Your task to perform on an android device: Go to network settings Image 0: 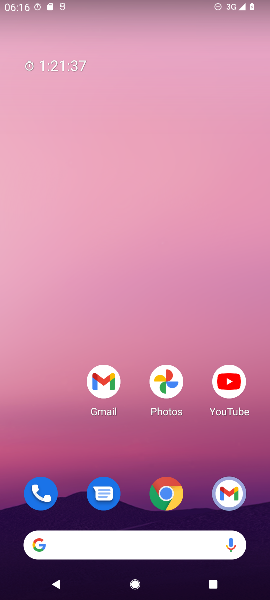
Step 0: drag from (68, 445) to (73, 102)
Your task to perform on an android device: Go to network settings Image 1: 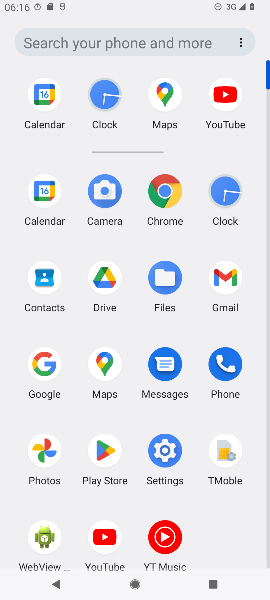
Step 1: click (164, 459)
Your task to perform on an android device: Go to network settings Image 2: 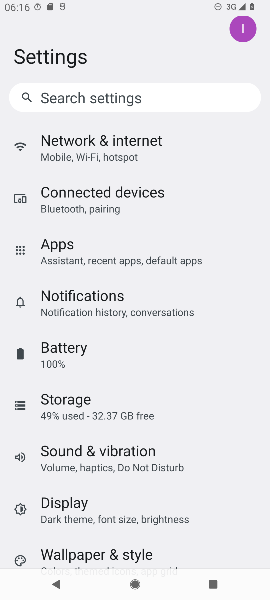
Step 2: drag from (219, 399) to (222, 296)
Your task to perform on an android device: Go to network settings Image 3: 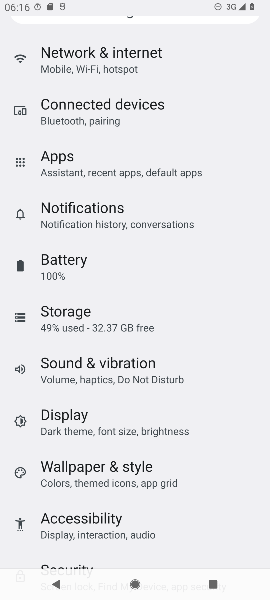
Step 3: drag from (228, 452) to (225, 326)
Your task to perform on an android device: Go to network settings Image 4: 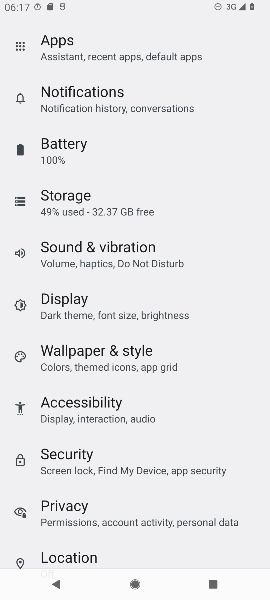
Step 4: drag from (226, 448) to (218, 305)
Your task to perform on an android device: Go to network settings Image 5: 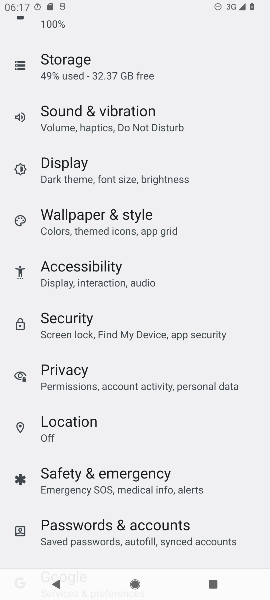
Step 5: drag from (240, 480) to (230, 329)
Your task to perform on an android device: Go to network settings Image 6: 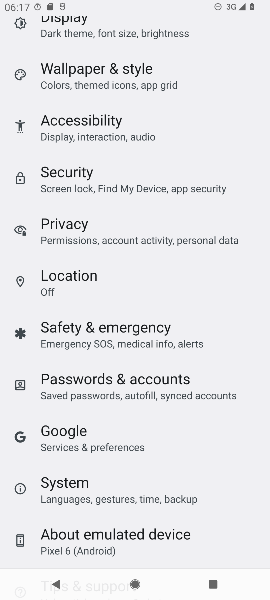
Step 6: drag from (236, 497) to (221, 373)
Your task to perform on an android device: Go to network settings Image 7: 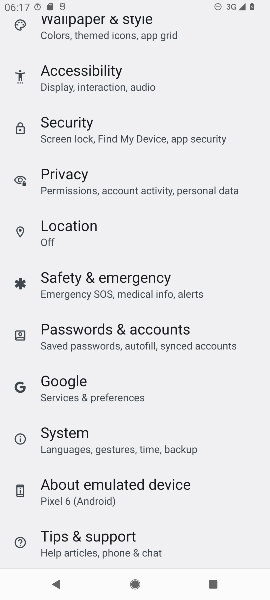
Step 7: drag from (242, 215) to (250, 384)
Your task to perform on an android device: Go to network settings Image 8: 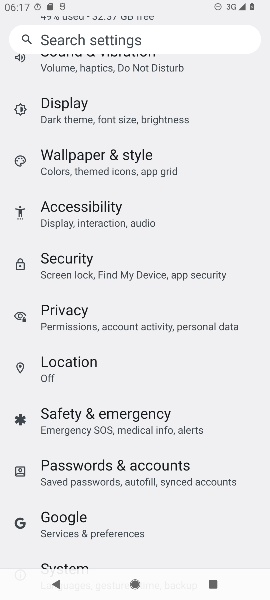
Step 8: drag from (250, 148) to (245, 305)
Your task to perform on an android device: Go to network settings Image 9: 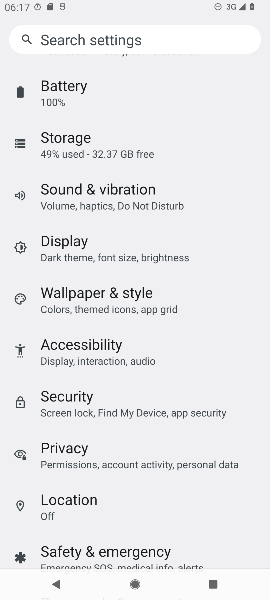
Step 9: drag from (230, 143) to (245, 328)
Your task to perform on an android device: Go to network settings Image 10: 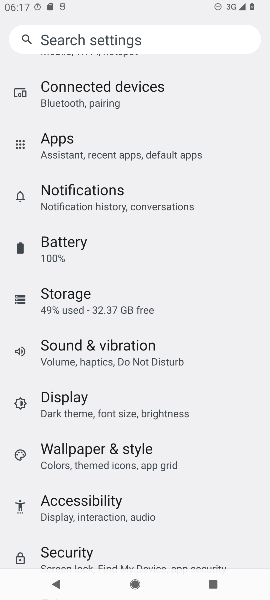
Step 10: drag from (239, 150) to (234, 348)
Your task to perform on an android device: Go to network settings Image 11: 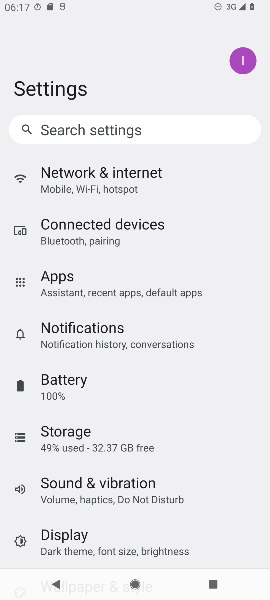
Step 11: click (153, 182)
Your task to perform on an android device: Go to network settings Image 12: 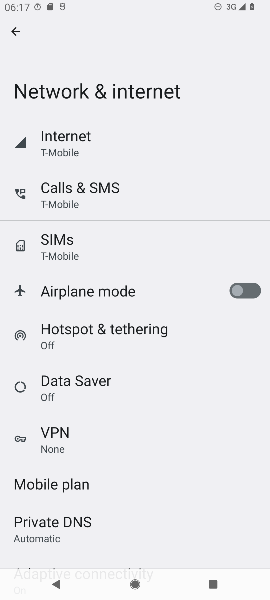
Step 12: task complete